Your task to perform on an android device: turn on notifications settings in the gmail app Image 0: 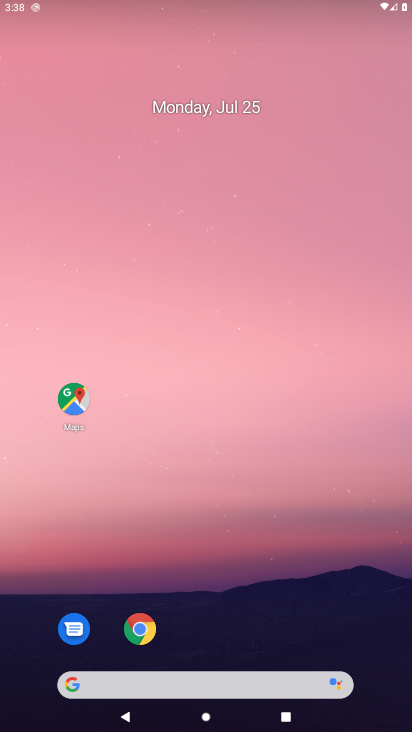
Step 0: drag from (14, 702) to (217, 115)
Your task to perform on an android device: turn on notifications settings in the gmail app Image 1: 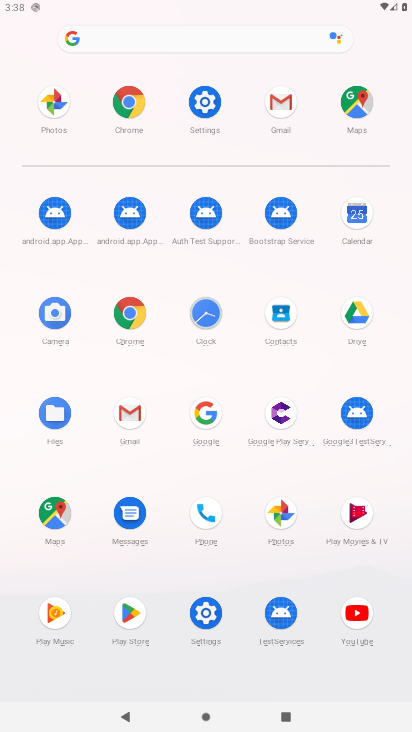
Step 1: click (194, 622)
Your task to perform on an android device: turn on notifications settings in the gmail app Image 2: 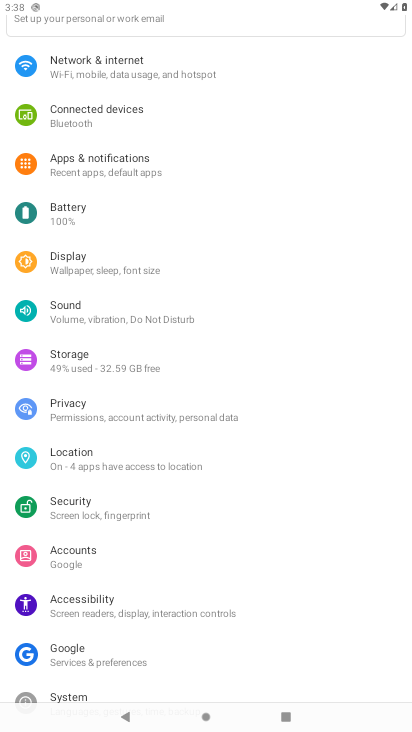
Step 2: click (97, 158)
Your task to perform on an android device: turn on notifications settings in the gmail app Image 3: 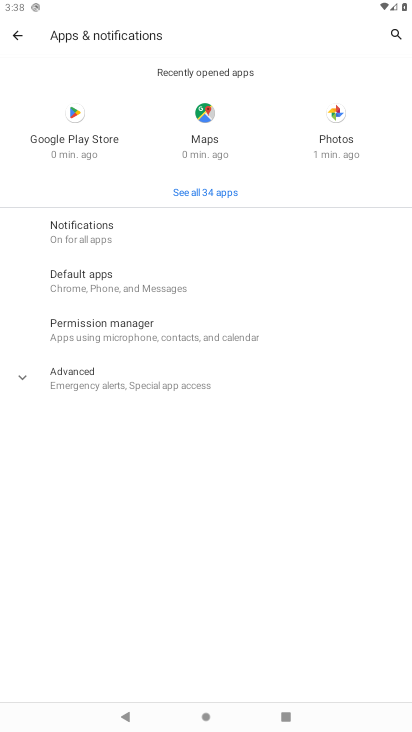
Step 3: task complete